Your task to perform on an android device: Search for pizza restaurants on Maps Image 0: 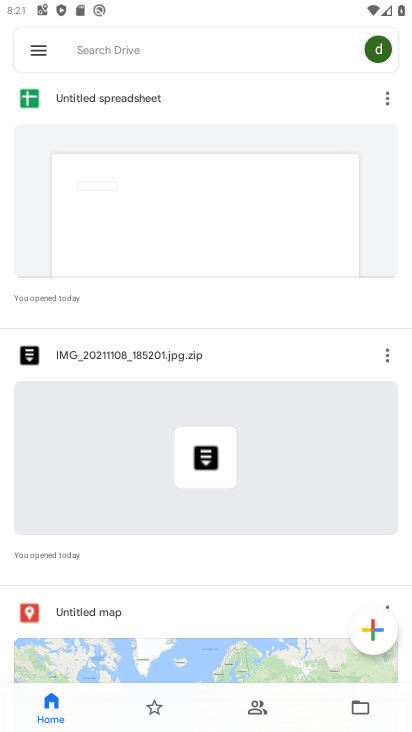
Step 0: press home button
Your task to perform on an android device: Search for pizza restaurants on Maps Image 1: 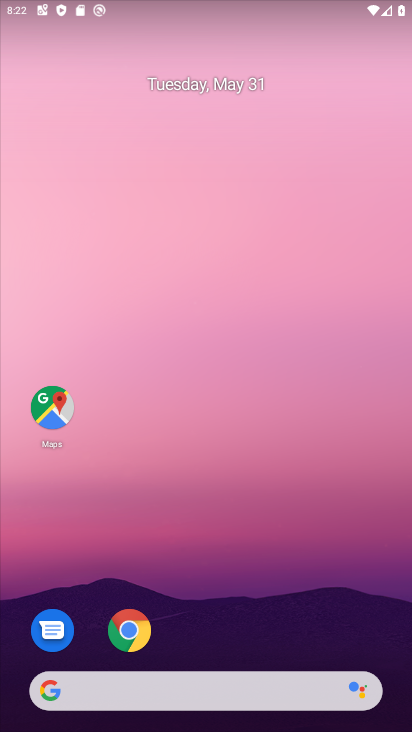
Step 1: click (56, 405)
Your task to perform on an android device: Search for pizza restaurants on Maps Image 2: 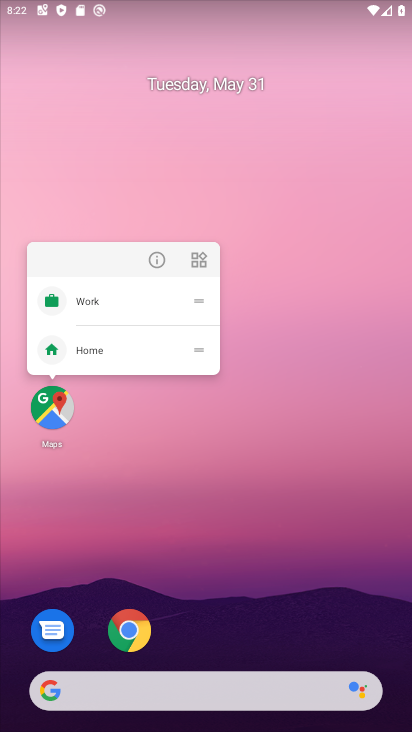
Step 2: click (57, 405)
Your task to perform on an android device: Search for pizza restaurants on Maps Image 3: 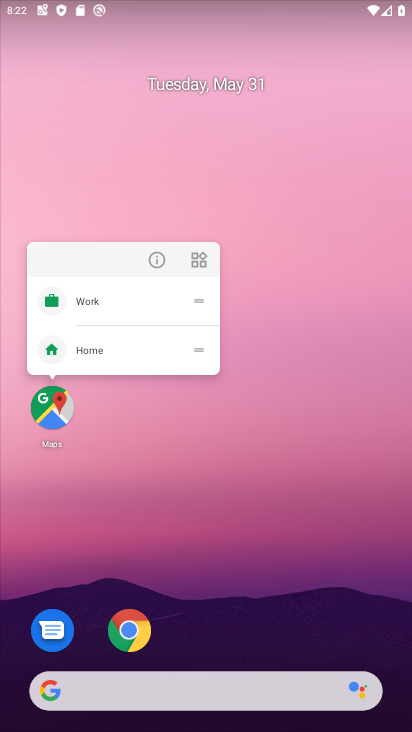
Step 3: click (62, 398)
Your task to perform on an android device: Search for pizza restaurants on Maps Image 4: 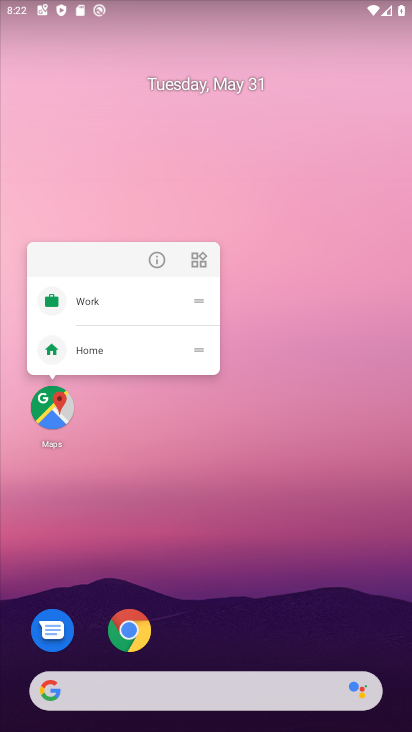
Step 4: click (62, 398)
Your task to perform on an android device: Search for pizza restaurants on Maps Image 5: 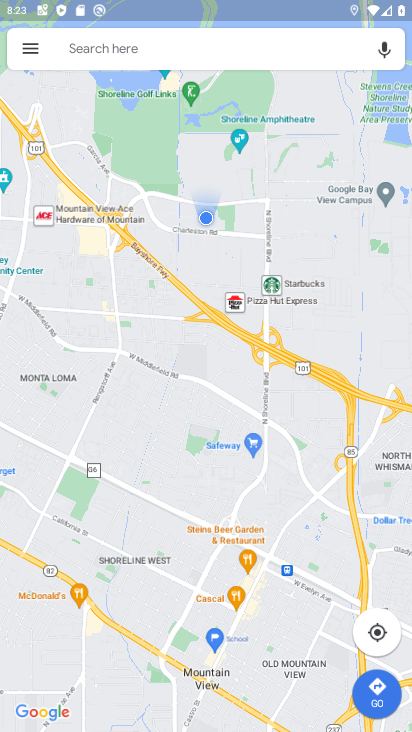
Step 5: click (159, 44)
Your task to perform on an android device: Search for pizza restaurants on Maps Image 6: 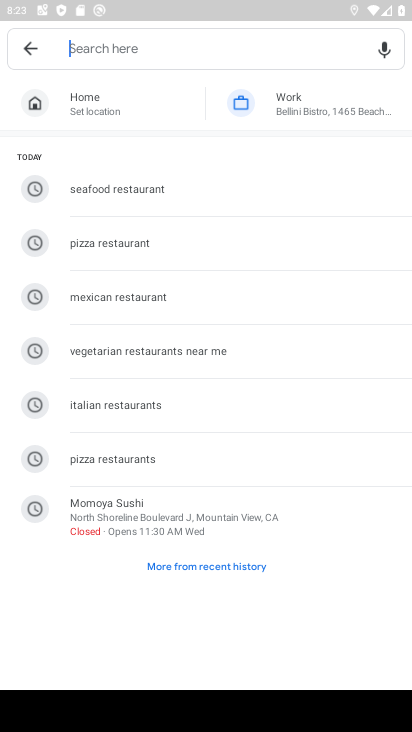
Step 6: click (102, 234)
Your task to perform on an android device: Search for pizza restaurants on Maps Image 7: 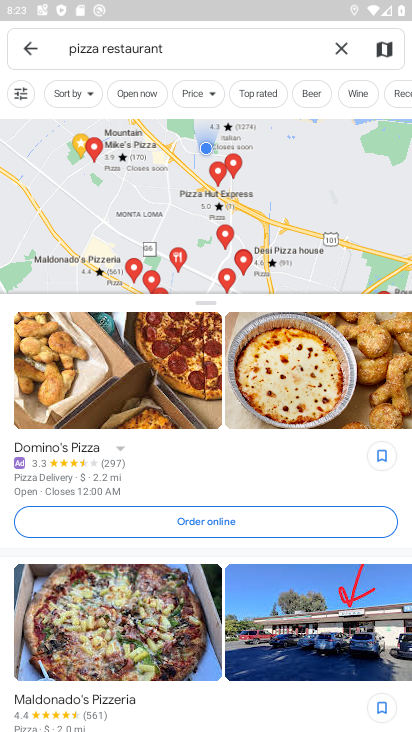
Step 7: task complete